Your task to perform on an android device: check data usage Image 0: 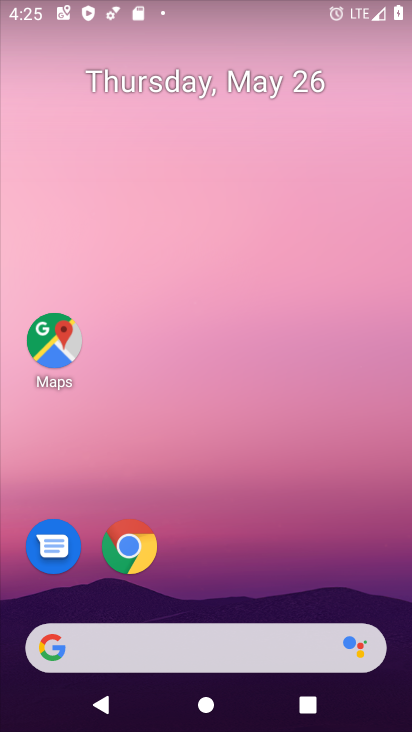
Step 0: drag from (196, 538) to (254, 47)
Your task to perform on an android device: check data usage Image 1: 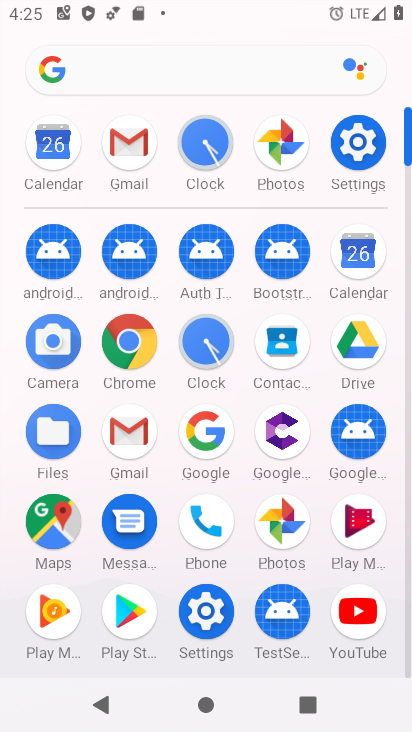
Step 1: click (350, 146)
Your task to perform on an android device: check data usage Image 2: 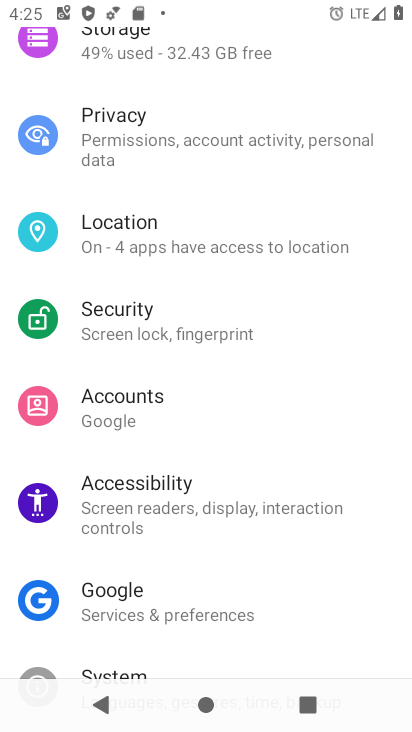
Step 2: drag from (280, 193) to (216, 685)
Your task to perform on an android device: check data usage Image 3: 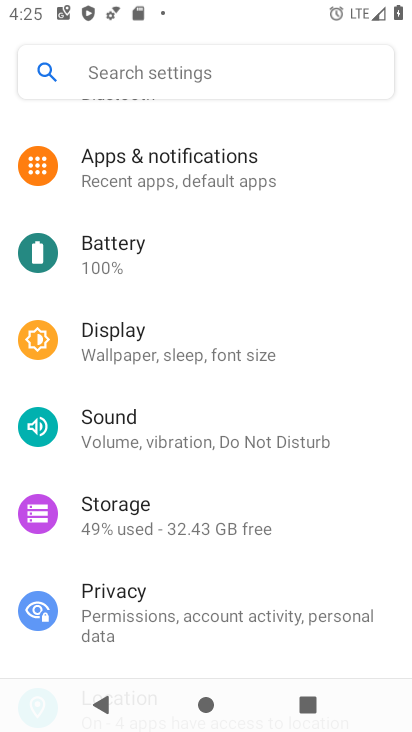
Step 3: drag from (228, 208) to (165, 695)
Your task to perform on an android device: check data usage Image 4: 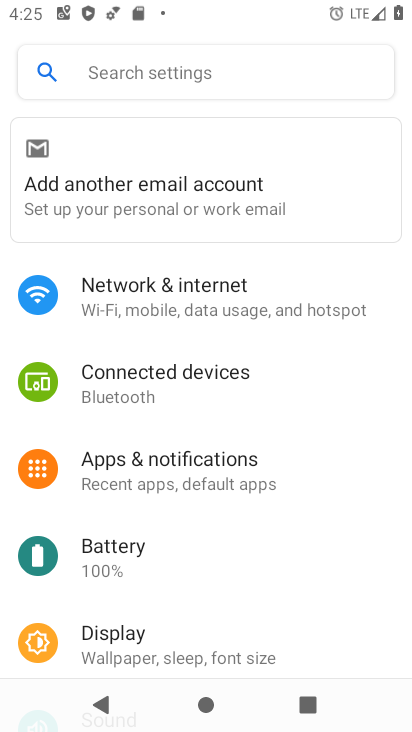
Step 4: click (178, 304)
Your task to perform on an android device: check data usage Image 5: 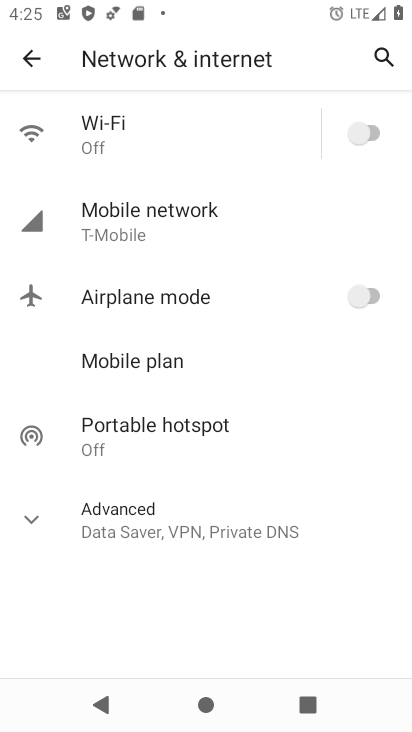
Step 5: click (166, 216)
Your task to perform on an android device: check data usage Image 6: 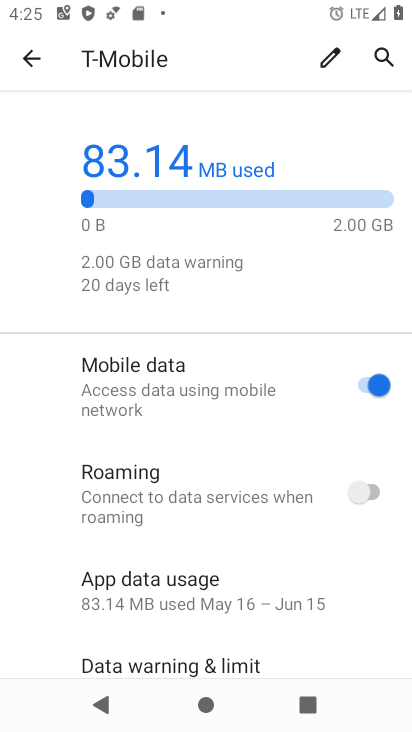
Step 6: click (168, 592)
Your task to perform on an android device: check data usage Image 7: 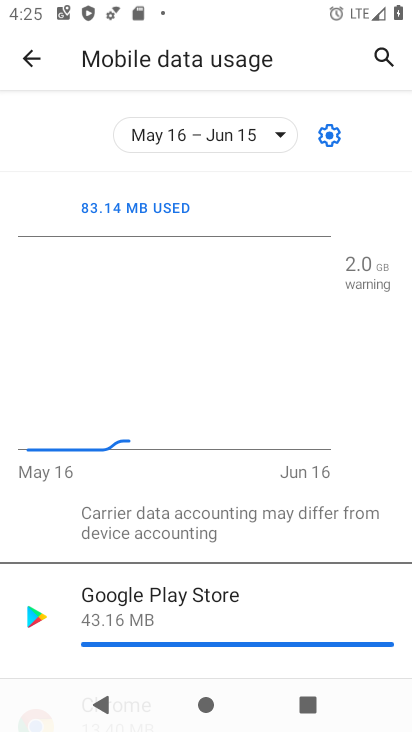
Step 7: task complete